Your task to perform on an android device: Go to CNN.com Image 0: 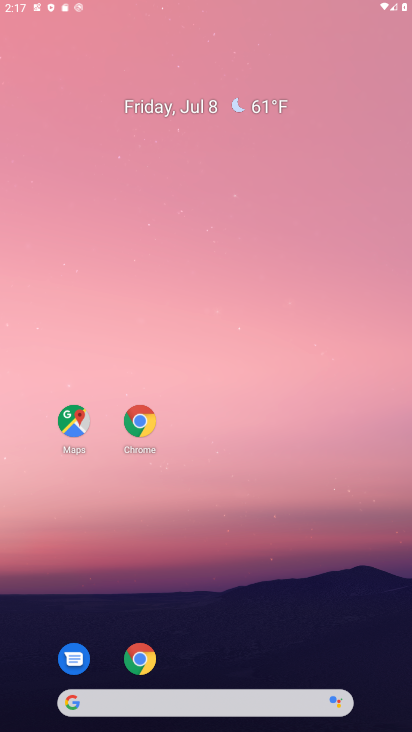
Step 0: drag from (189, 417) to (184, 114)
Your task to perform on an android device: Go to CNN.com Image 1: 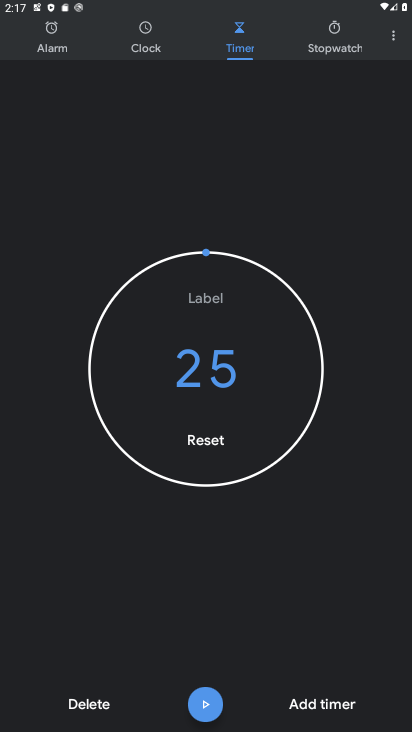
Step 1: press home button
Your task to perform on an android device: Go to CNN.com Image 2: 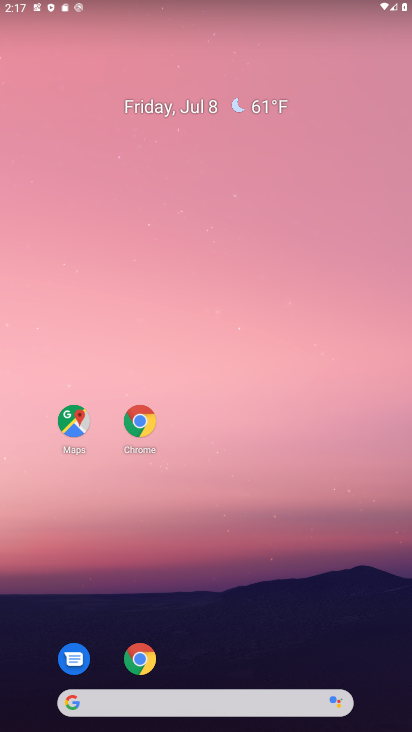
Step 2: click (162, 656)
Your task to perform on an android device: Go to CNN.com Image 3: 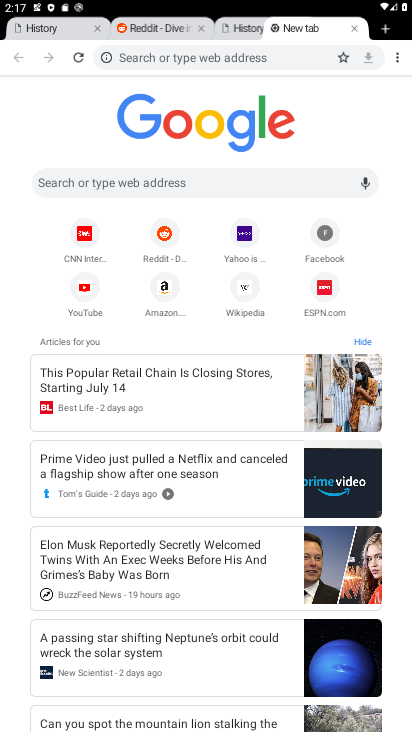
Step 3: click (83, 238)
Your task to perform on an android device: Go to CNN.com Image 4: 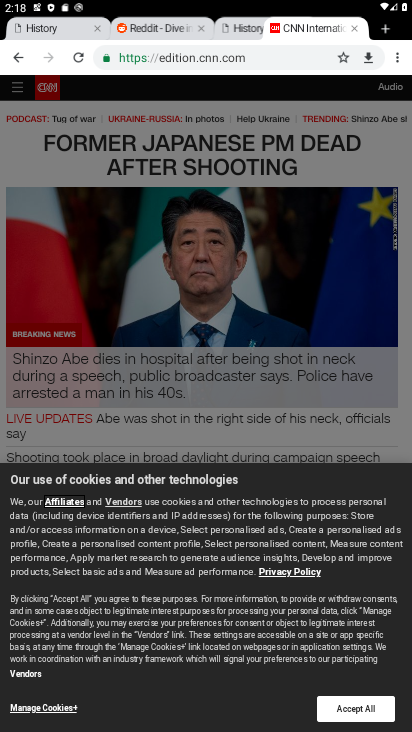
Step 4: task complete